Your task to perform on an android device: turn off data saver in the chrome app Image 0: 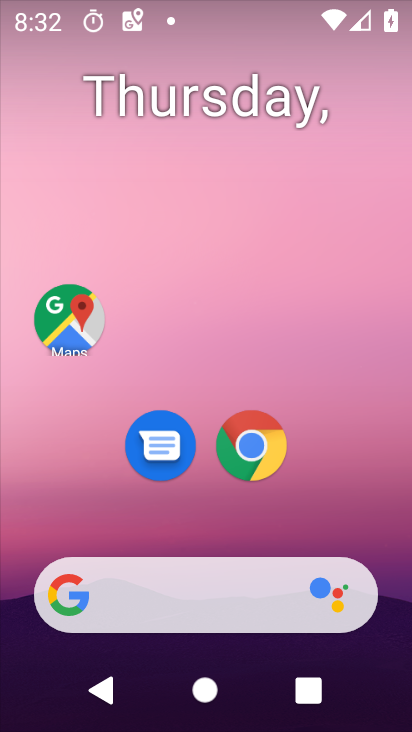
Step 0: click (258, 444)
Your task to perform on an android device: turn off data saver in the chrome app Image 1: 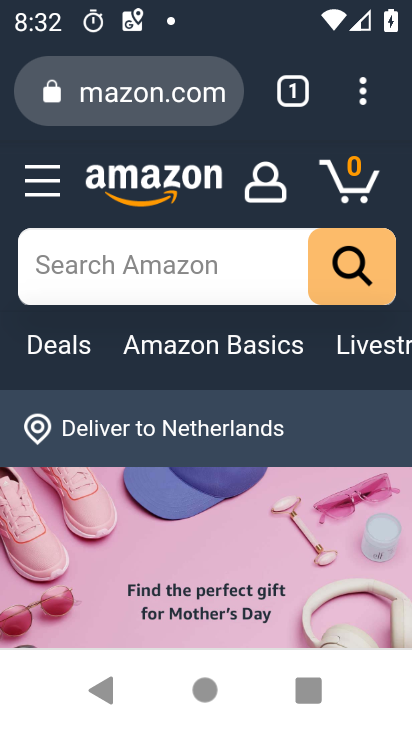
Step 1: click (364, 95)
Your task to perform on an android device: turn off data saver in the chrome app Image 2: 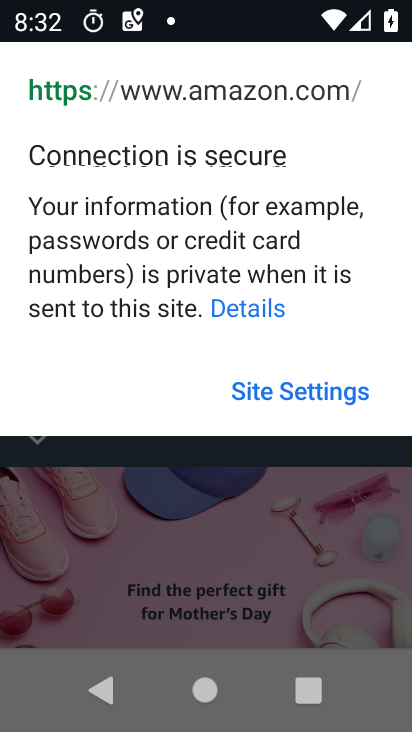
Step 2: click (336, 555)
Your task to perform on an android device: turn off data saver in the chrome app Image 3: 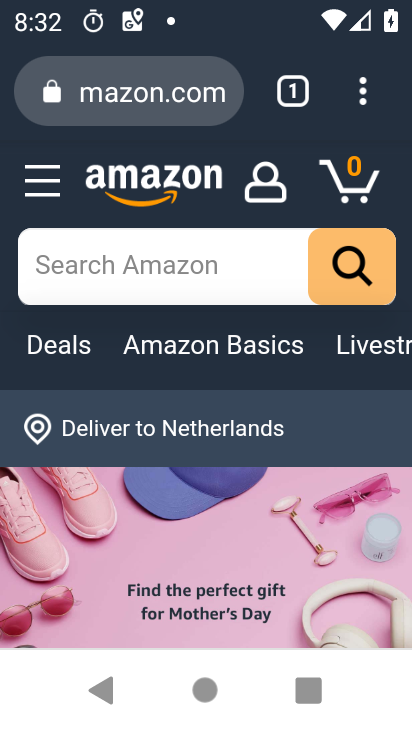
Step 3: click (364, 92)
Your task to perform on an android device: turn off data saver in the chrome app Image 4: 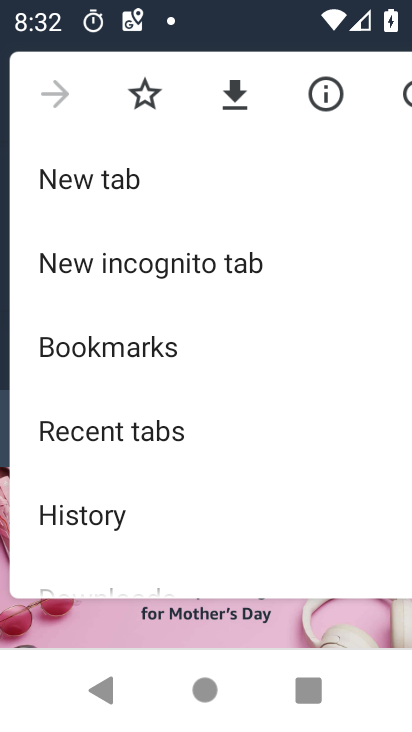
Step 4: drag from (108, 542) to (176, 217)
Your task to perform on an android device: turn off data saver in the chrome app Image 5: 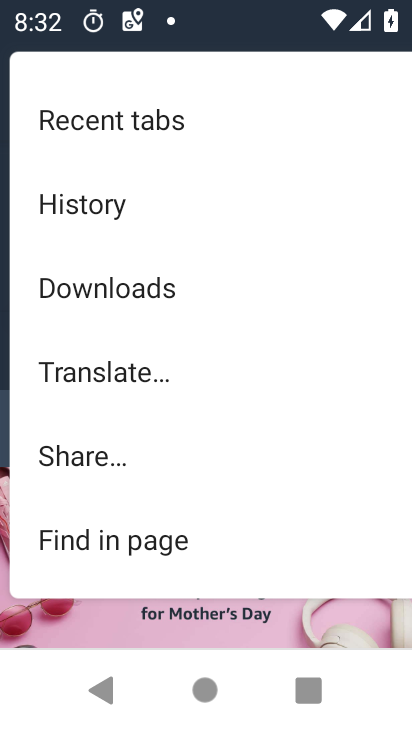
Step 5: drag from (134, 515) to (206, 106)
Your task to perform on an android device: turn off data saver in the chrome app Image 6: 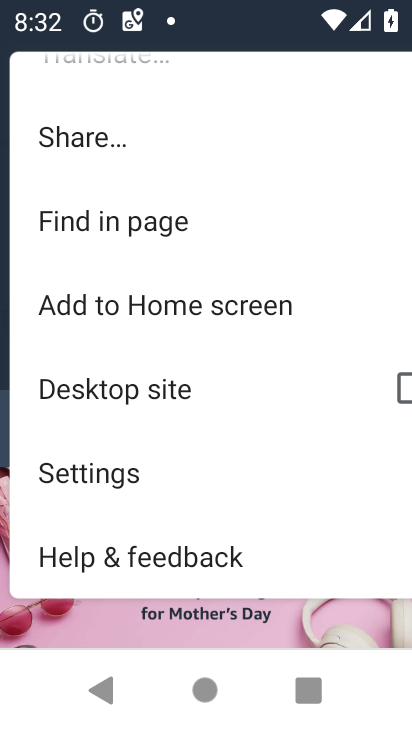
Step 6: click (121, 482)
Your task to perform on an android device: turn off data saver in the chrome app Image 7: 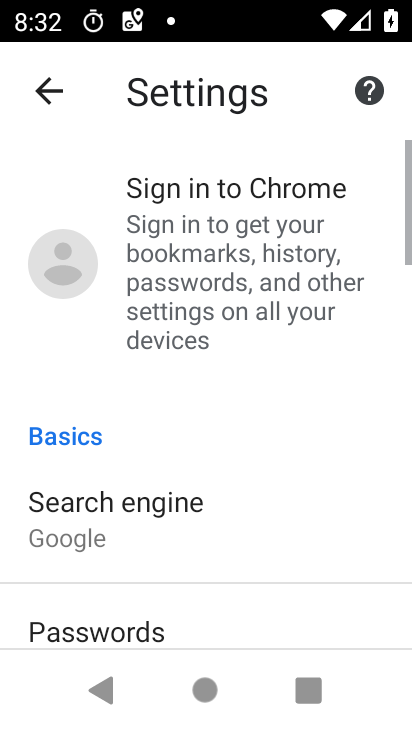
Step 7: drag from (90, 610) to (176, 216)
Your task to perform on an android device: turn off data saver in the chrome app Image 8: 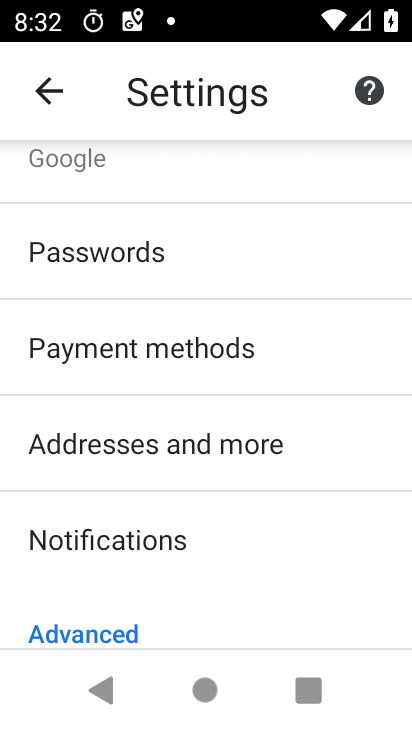
Step 8: drag from (133, 604) to (165, 235)
Your task to perform on an android device: turn off data saver in the chrome app Image 9: 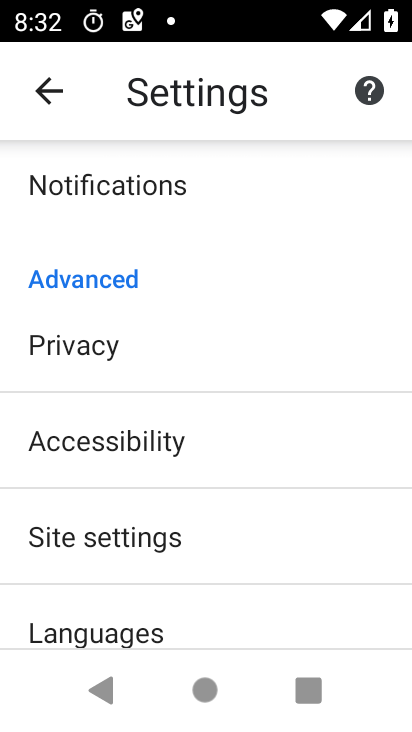
Step 9: drag from (155, 598) to (228, 237)
Your task to perform on an android device: turn off data saver in the chrome app Image 10: 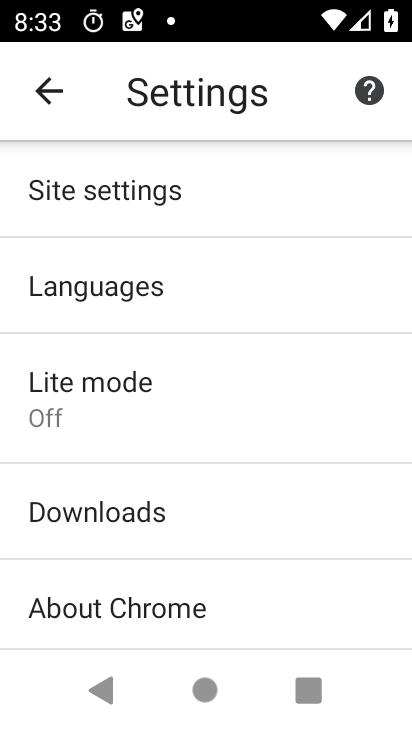
Step 10: click (124, 378)
Your task to perform on an android device: turn off data saver in the chrome app Image 11: 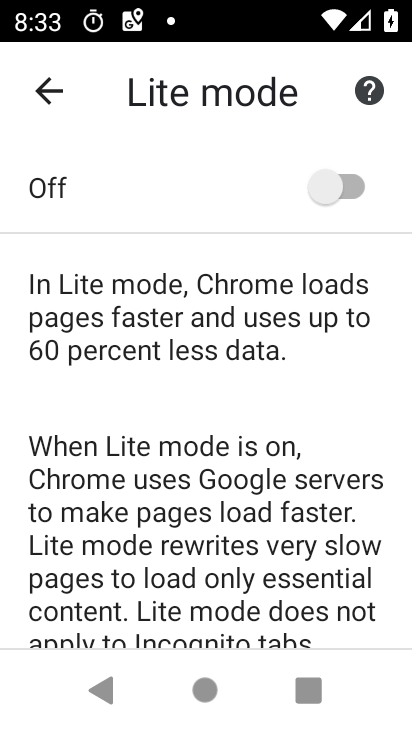
Step 11: click (335, 178)
Your task to perform on an android device: turn off data saver in the chrome app Image 12: 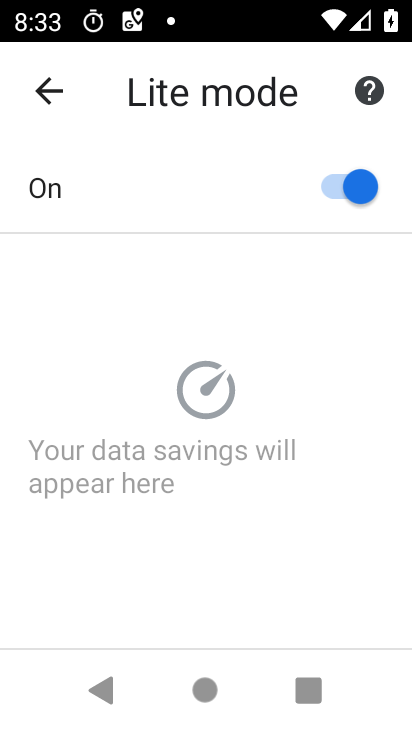
Step 12: task complete